Your task to perform on an android device: Go to notification settings Image 0: 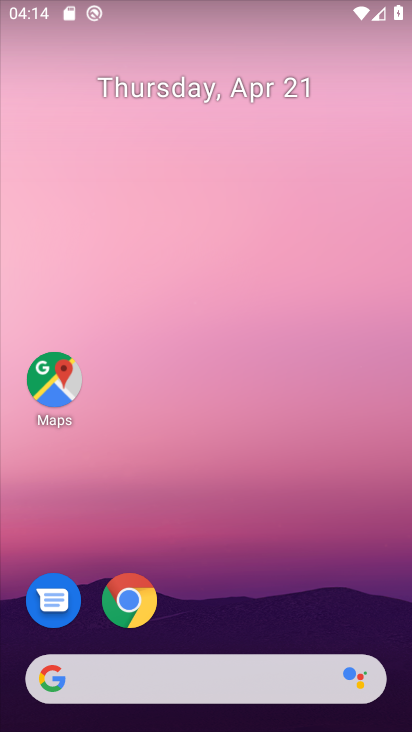
Step 0: drag from (367, 611) to (345, 24)
Your task to perform on an android device: Go to notification settings Image 1: 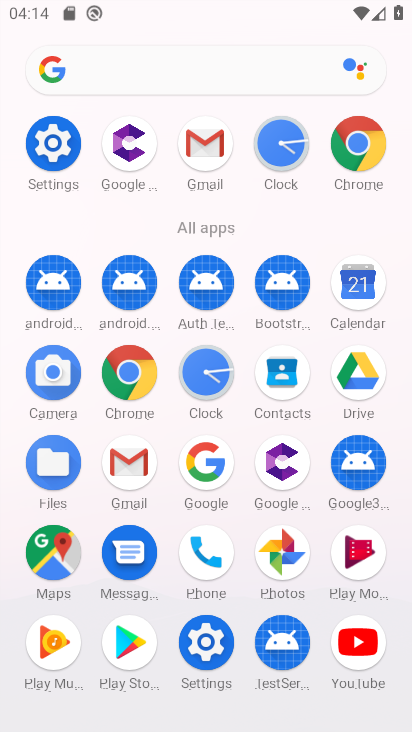
Step 1: click (49, 159)
Your task to perform on an android device: Go to notification settings Image 2: 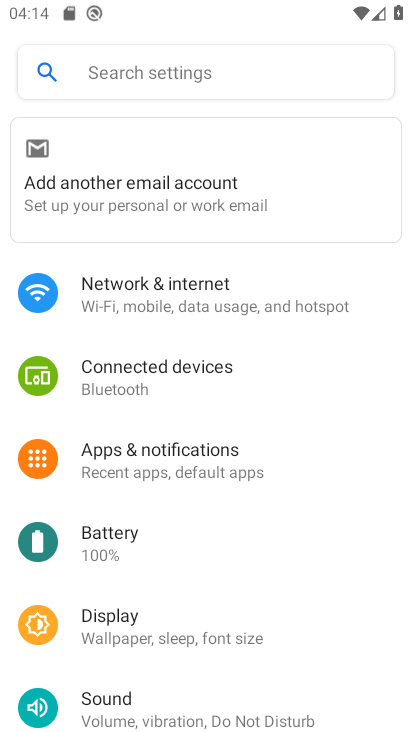
Step 2: click (160, 466)
Your task to perform on an android device: Go to notification settings Image 3: 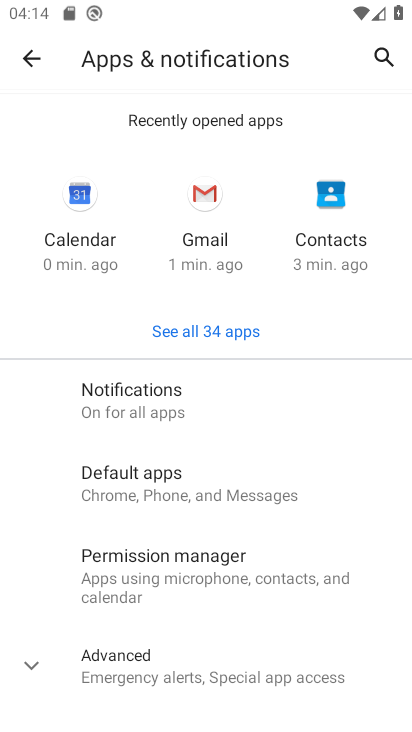
Step 3: task complete